Your task to perform on an android device: Open calendar and show me the third week of next month Image 0: 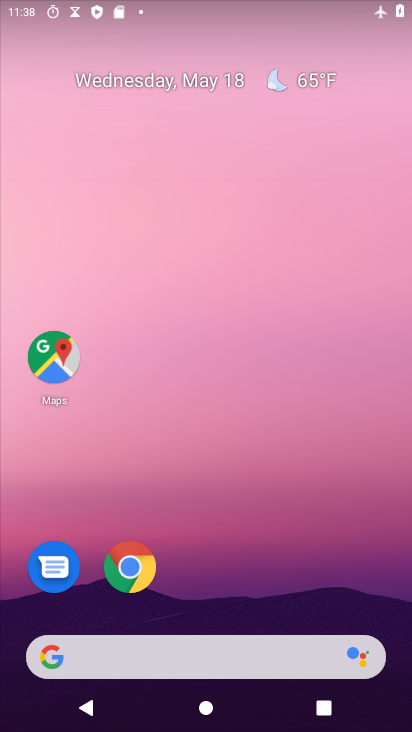
Step 0: click (171, 82)
Your task to perform on an android device: Open calendar and show me the third week of next month Image 1: 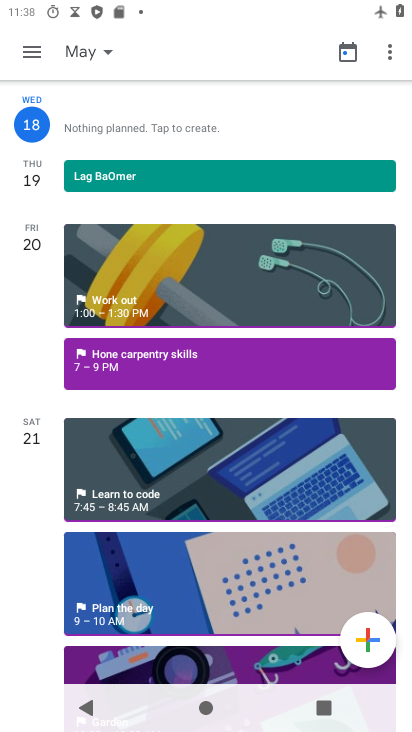
Step 1: click (37, 53)
Your task to perform on an android device: Open calendar and show me the third week of next month Image 2: 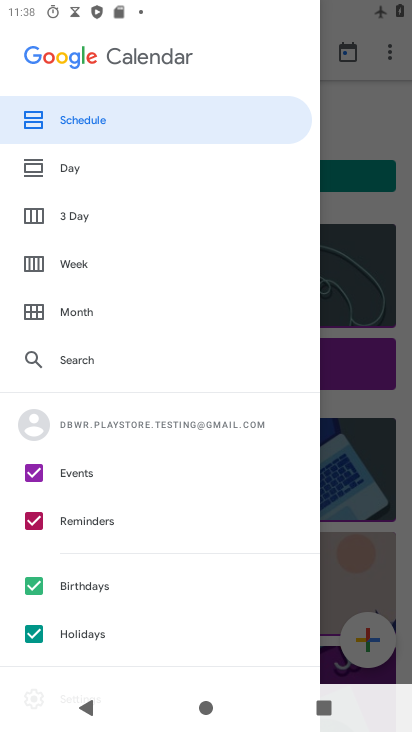
Step 2: click (81, 256)
Your task to perform on an android device: Open calendar and show me the third week of next month Image 3: 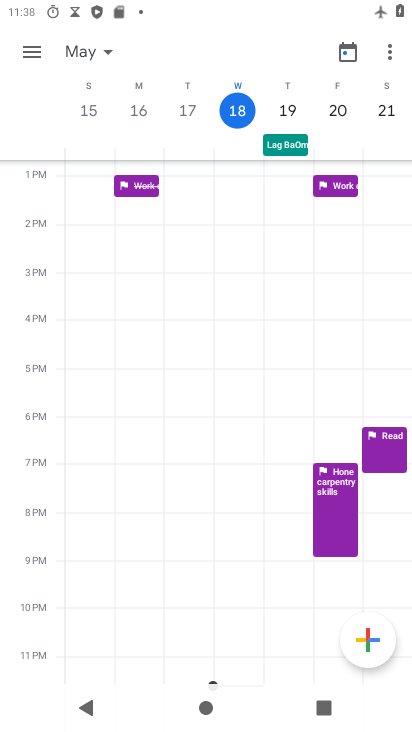
Step 3: click (109, 51)
Your task to perform on an android device: Open calendar and show me the third week of next month Image 4: 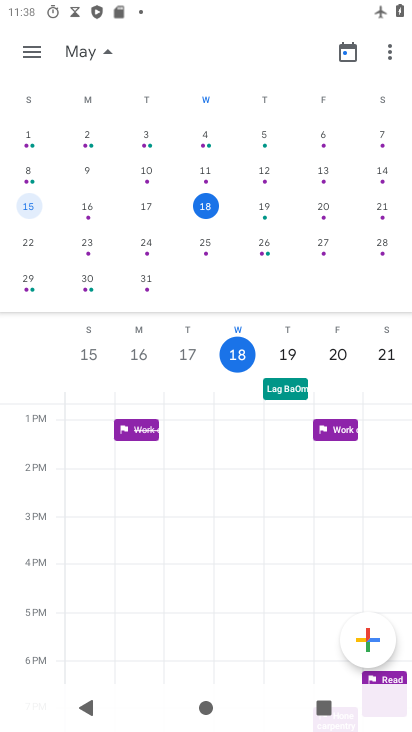
Step 4: drag from (363, 209) to (17, 217)
Your task to perform on an android device: Open calendar and show me the third week of next month Image 5: 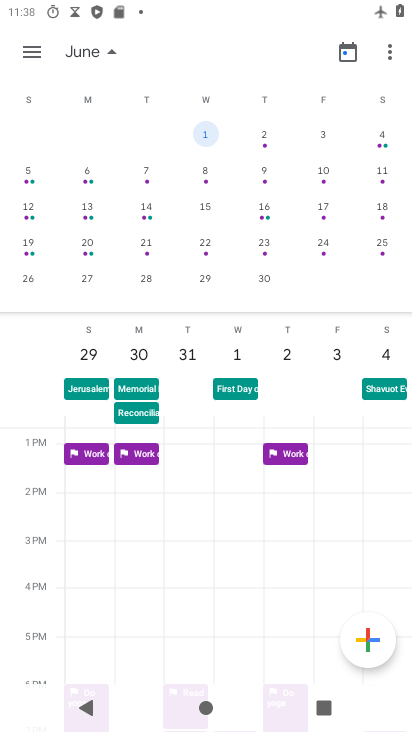
Step 5: click (200, 206)
Your task to perform on an android device: Open calendar and show me the third week of next month Image 6: 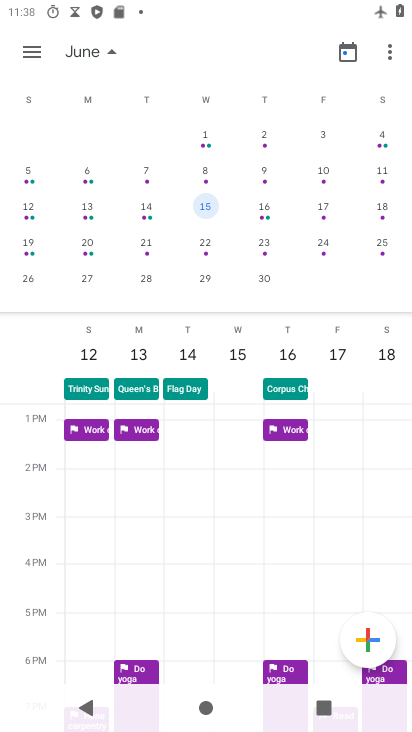
Step 6: task complete